Your task to perform on an android device: What's on my calendar today? Image 0: 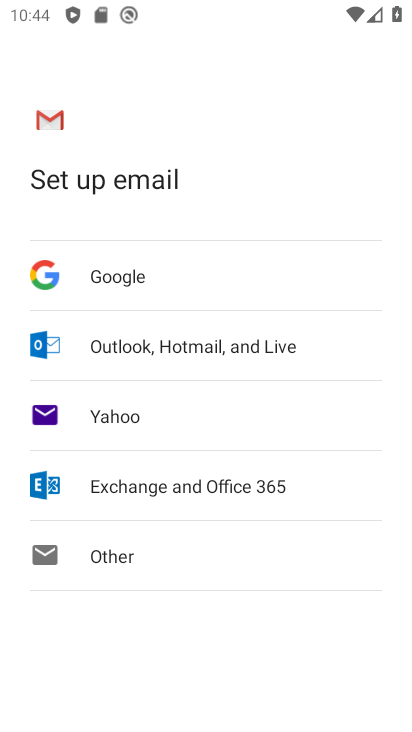
Step 0: press home button
Your task to perform on an android device: What's on my calendar today? Image 1: 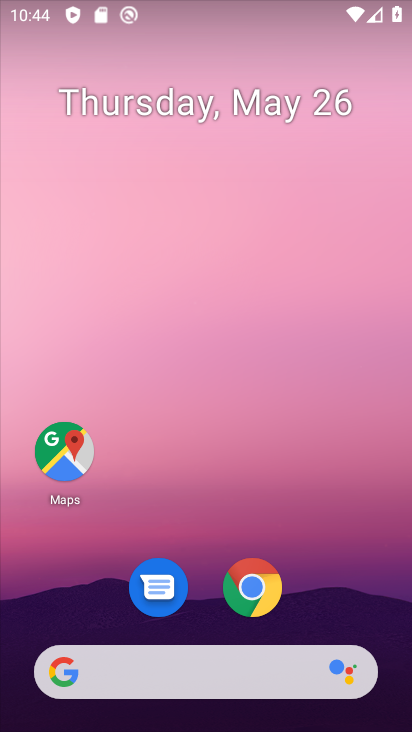
Step 1: drag from (283, 678) to (307, 80)
Your task to perform on an android device: What's on my calendar today? Image 2: 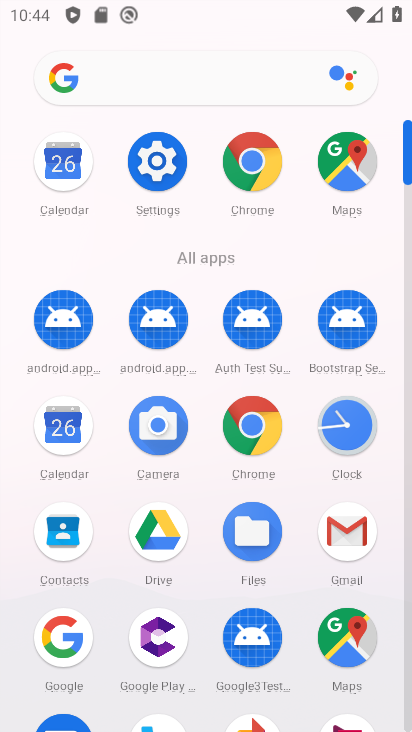
Step 2: click (74, 418)
Your task to perform on an android device: What's on my calendar today? Image 3: 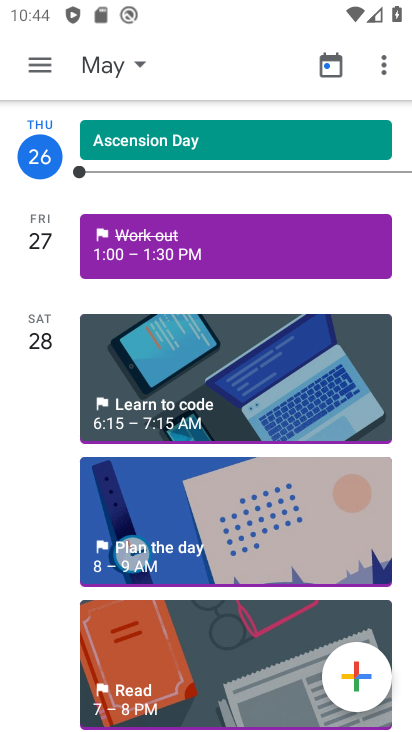
Step 3: click (39, 71)
Your task to perform on an android device: What's on my calendar today? Image 4: 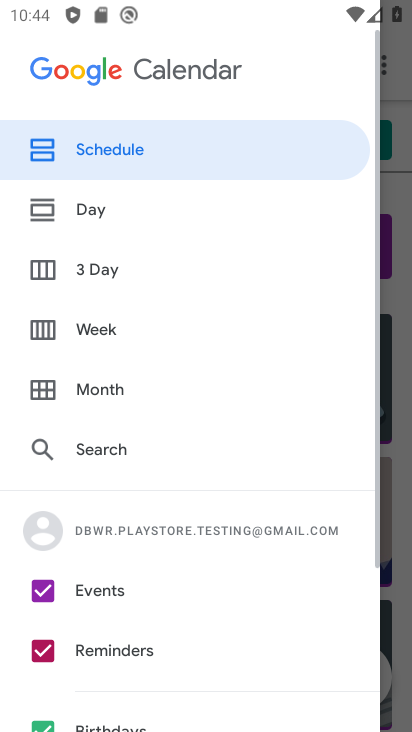
Step 4: click (156, 162)
Your task to perform on an android device: What's on my calendar today? Image 5: 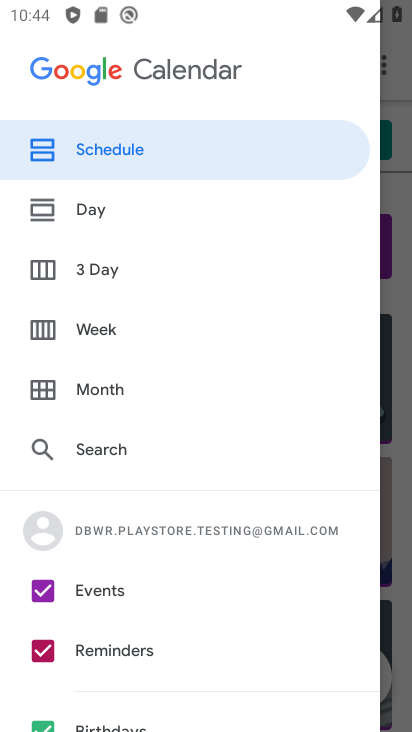
Step 5: click (103, 220)
Your task to perform on an android device: What's on my calendar today? Image 6: 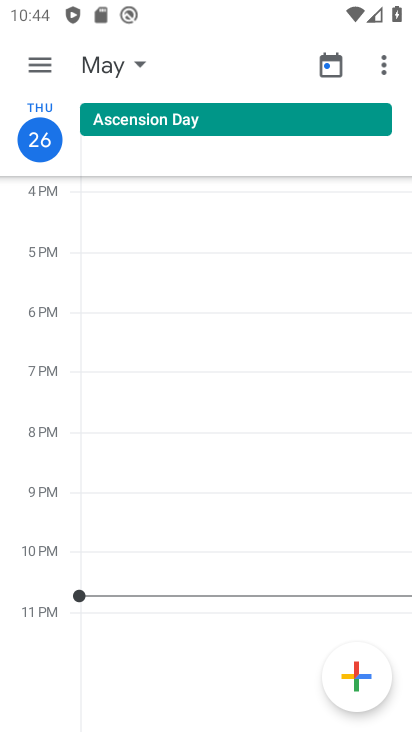
Step 6: task complete